Your task to perform on an android device: change notifications settings Image 0: 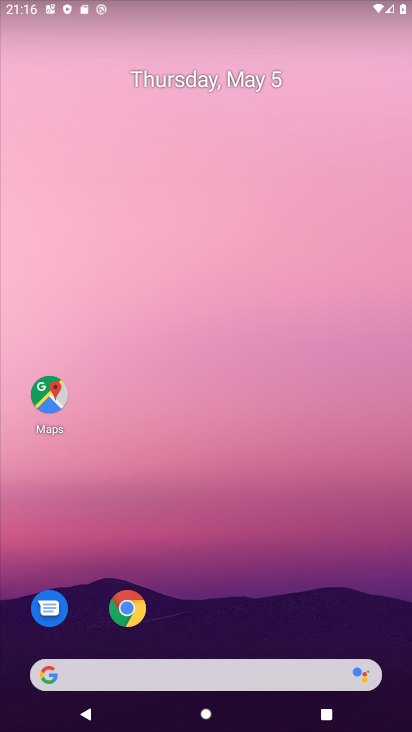
Step 0: drag from (308, 662) to (234, 0)
Your task to perform on an android device: change notifications settings Image 1: 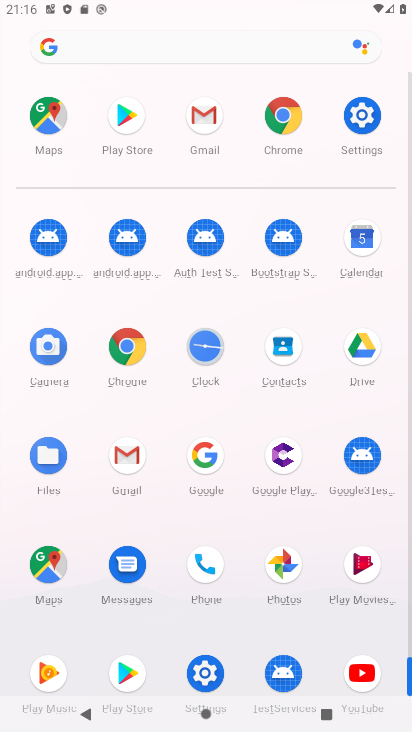
Step 1: click (366, 111)
Your task to perform on an android device: change notifications settings Image 2: 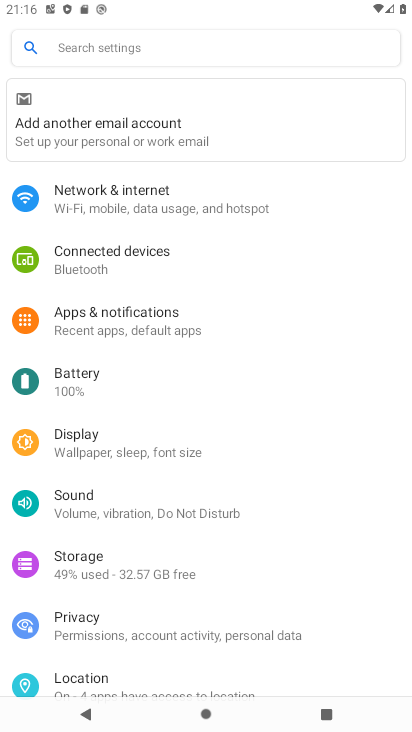
Step 2: click (151, 326)
Your task to perform on an android device: change notifications settings Image 3: 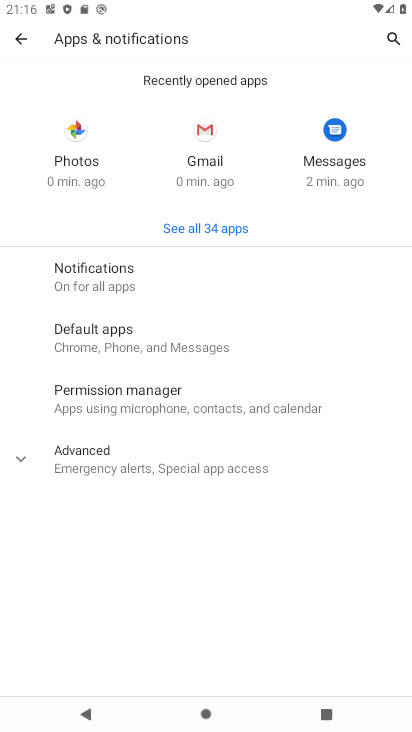
Step 3: click (153, 280)
Your task to perform on an android device: change notifications settings Image 4: 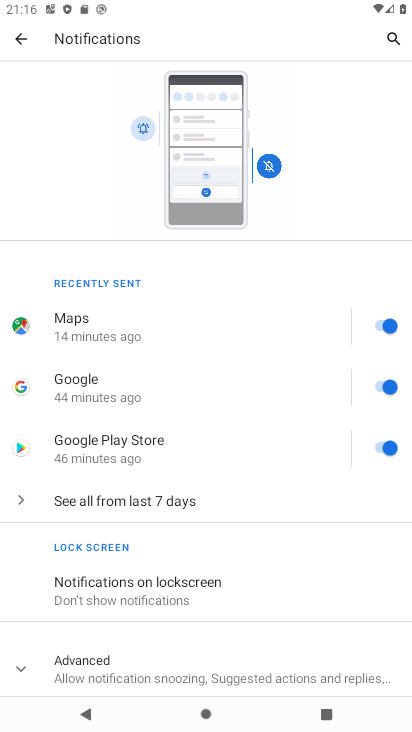
Step 4: drag from (208, 641) to (212, 321)
Your task to perform on an android device: change notifications settings Image 5: 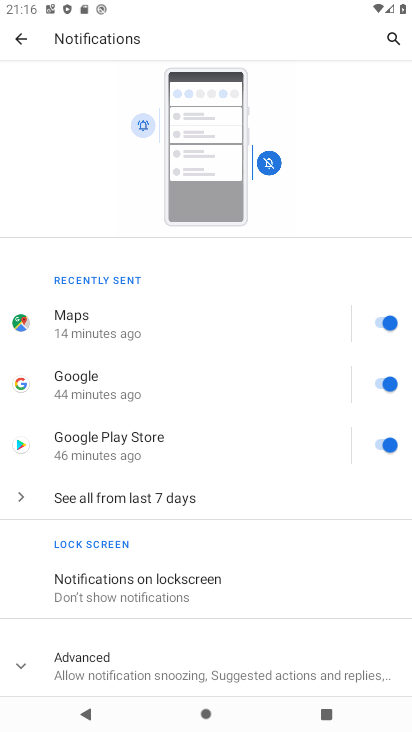
Step 5: click (269, 170)
Your task to perform on an android device: change notifications settings Image 6: 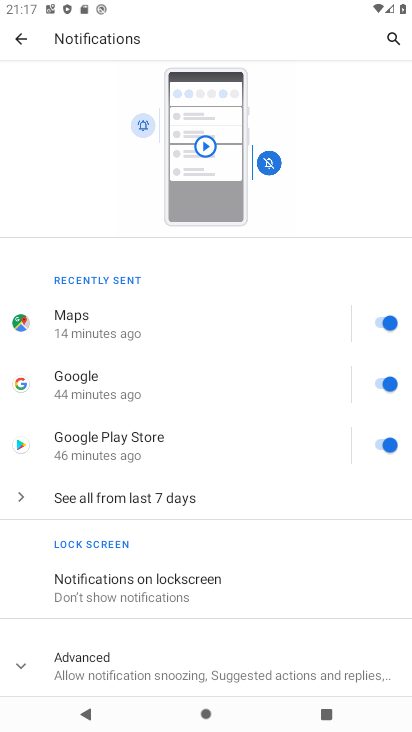
Step 6: task complete